Your task to perform on an android device: check storage Image 0: 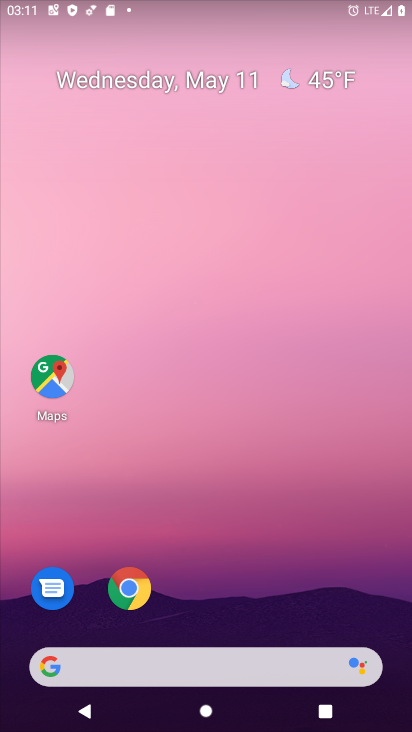
Step 0: drag from (240, 582) to (259, 306)
Your task to perform on an android device: check storage Image 1: 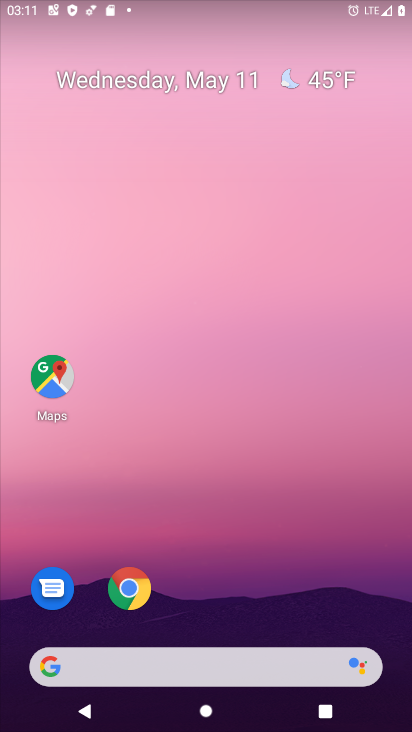
Step 1: drag from (236, 627) to (240, 67)
Your task to perform on an android device: check storage Image 2: 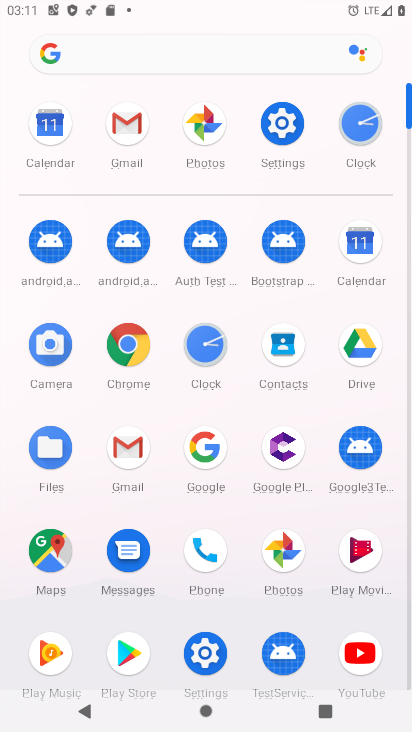
Step 2: click (278, 110)
Your task to perform on an android device: check storage Image 3: 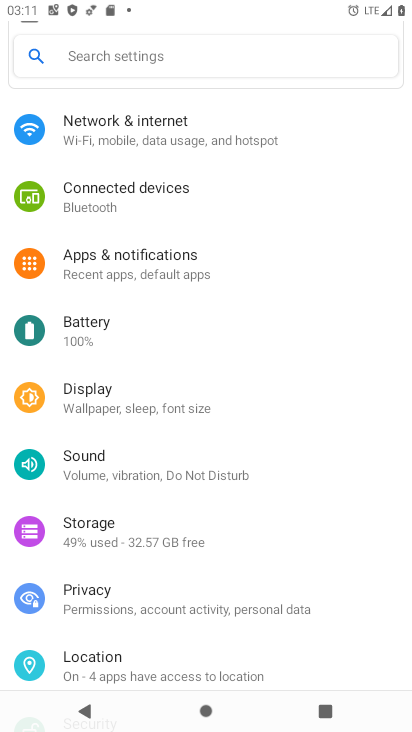
Step 3: click (155, 546)
Your task to perform on an android device: check storage Image 4: 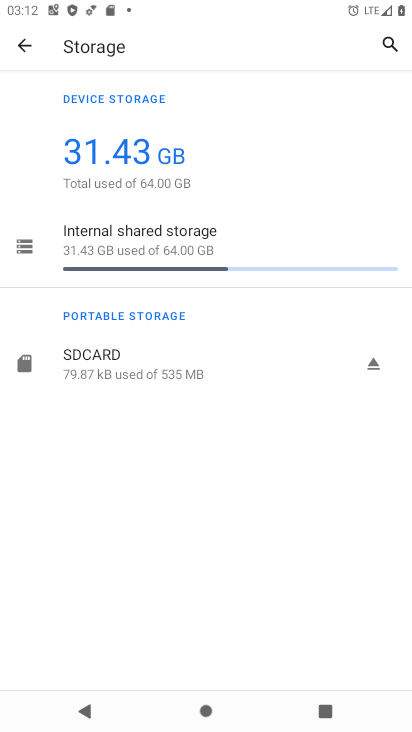
Step 4: task complete